Your task to perform on an android device: Go to calendar. Show me events next week Image 0: 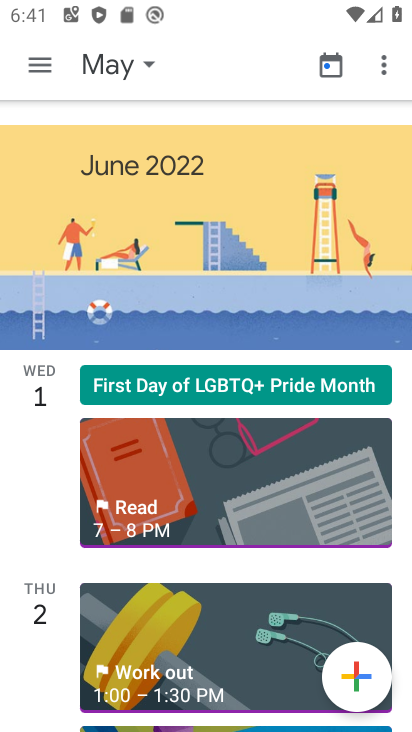
Step 0: press back button
Your task to perform on an android device: Go to calendar. Show me events next week Image 1: 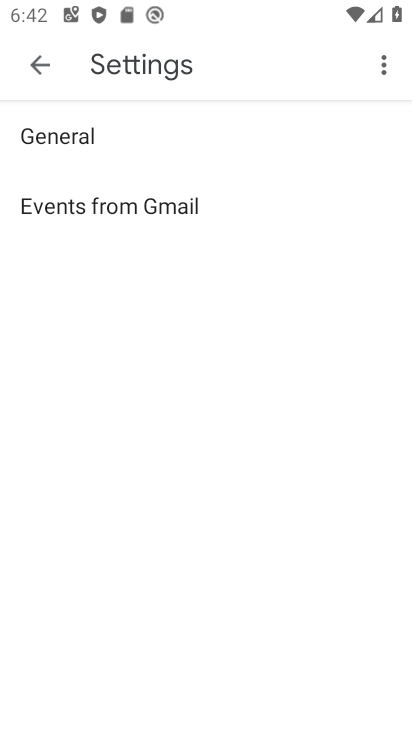
Step 1: press home button
Your task to perform on an android device: Go to calendar. Show me events next week Image 2: 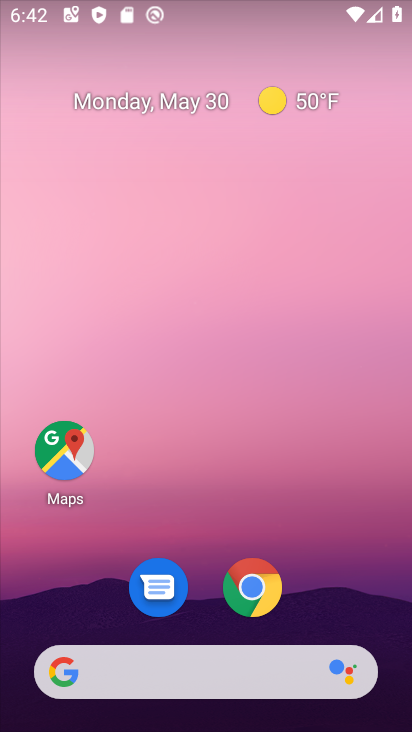
Step 2: drag from (309, 591) to (196, 15)
Your task to perform on an android device: Go to calendar. Show me events next week Image 3: 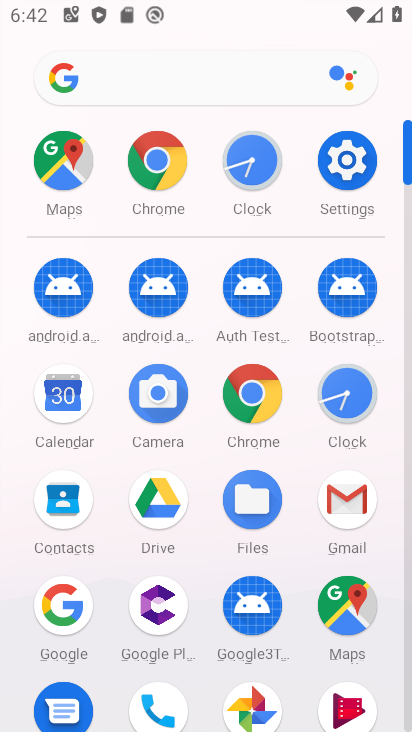
Step 3: drag from (9, 602) to (15, 222)
Your task to perform on an android device: Go to calendar. Show me events next week Image 4: 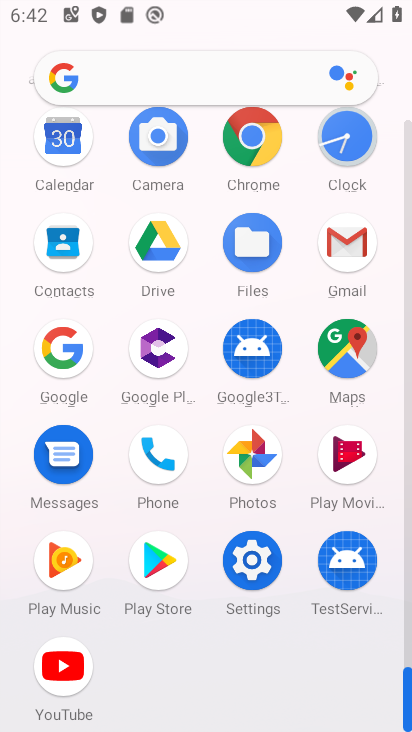
Step 4: drag from (25, 566) to (25, 288)
Your task to perform on an android device: Go to calendar. Show me events next week Image 5: 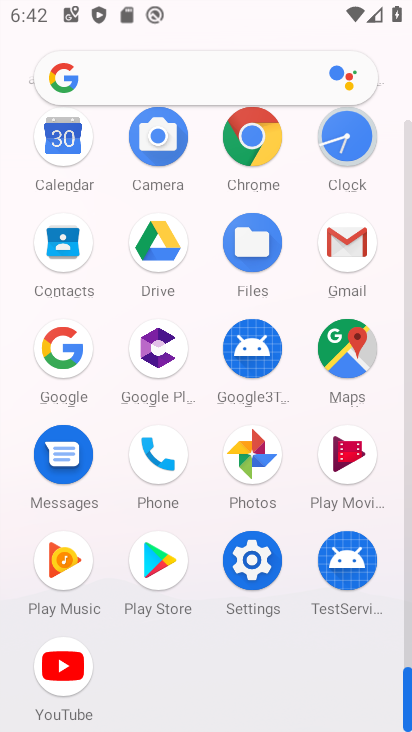
Step 5: drag from (26, 209) to (25, 342)
Your task to perform on an android device: Go to calendar. Show me events next week Image 6: 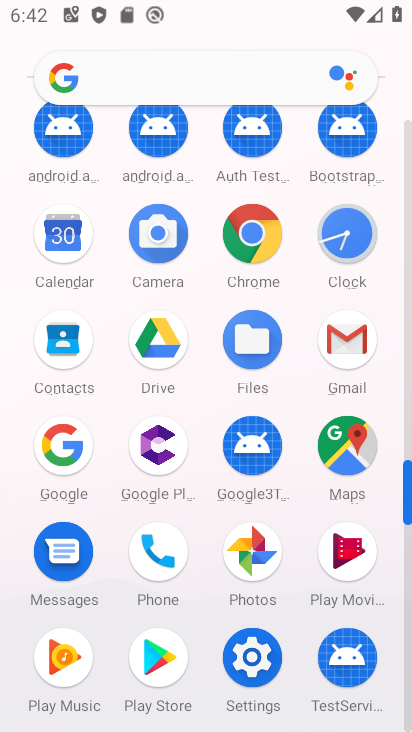
Step 6: click (62, 225)
Your task to perform on an android device: Go to calendar. Show me events next week Image 7: 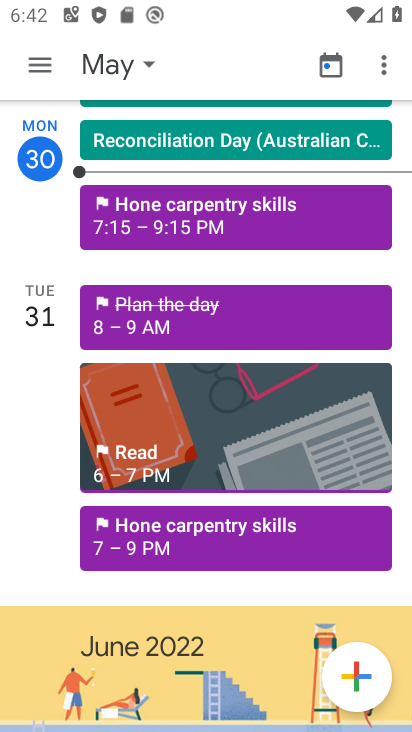
Step 7: click (35, 66)
Your task to perform on an android device: Go to calendar. Show me events next week Image 8: 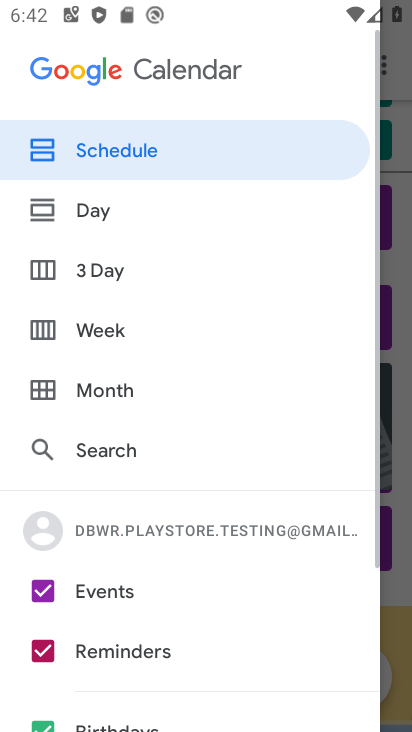
Step 8: click (160, 148)
Your task to perform on an android device: Go to calendar. Show me events next week Image 9: 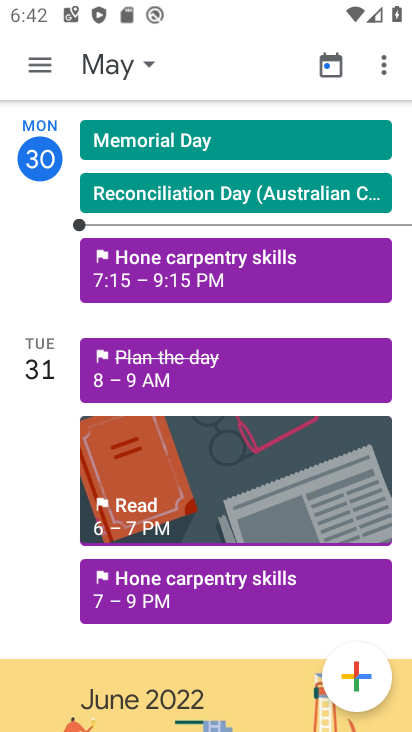
Step 9: click (122, 59)
Your task to perform on an android device: Go to calendar. Show me events next week Image 10: 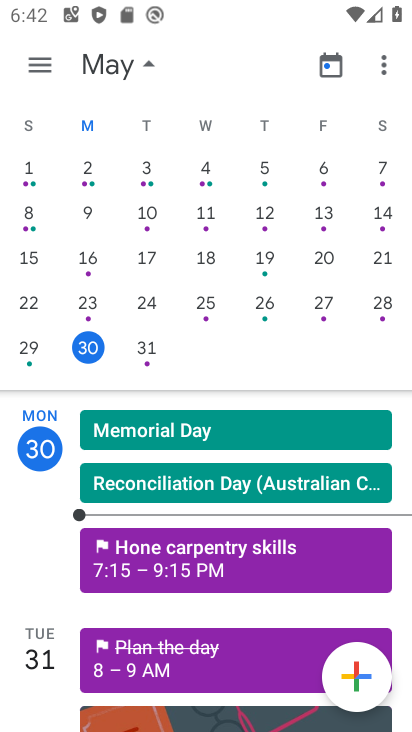
Step 10: click (30, 67)
Your task to perform on an android device: Go to calendar. Show me events next week Image 11: 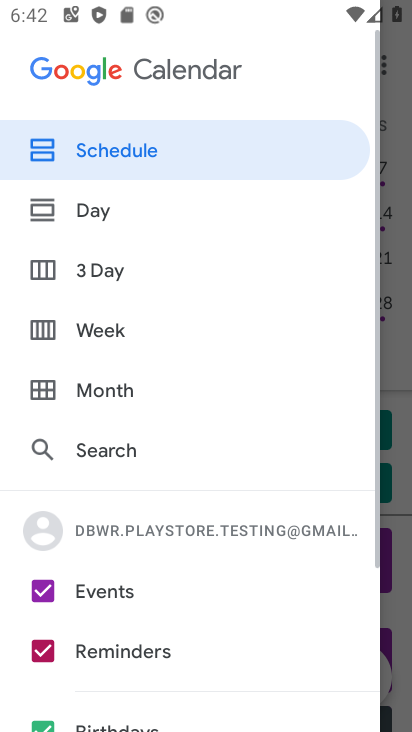
Step 11: click (94, 334)
Your task to perform on an android device: Go to calendar. Show me events next week Image 12: 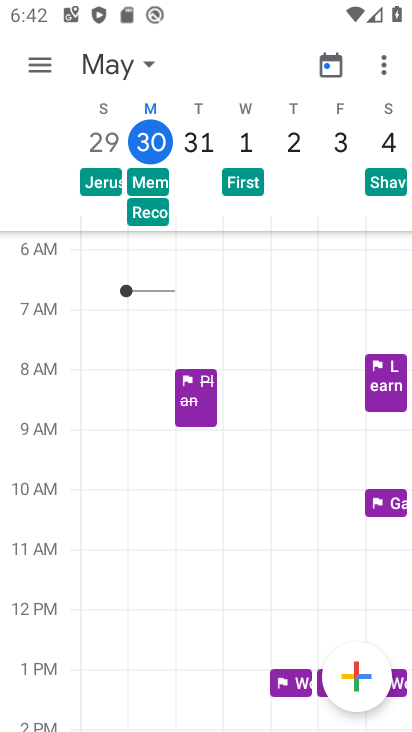
Step 12: task complete